Your task to perform on an android device: refresh tabs in the chrome app Image 0: 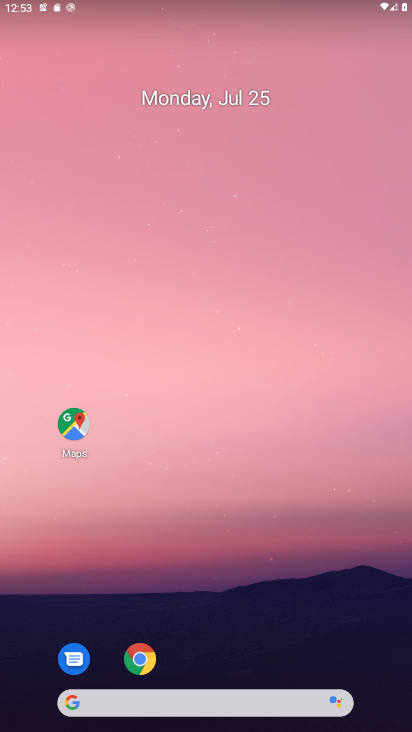
Step 0: press home button
Your task to perform on an android device: refresh tabs in the chrome app Image 1: 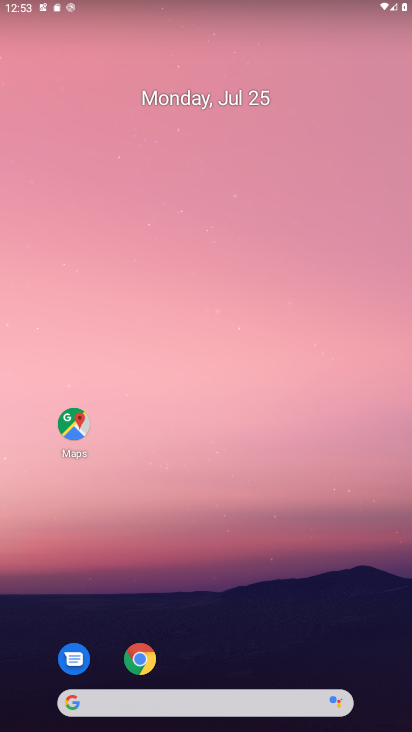
Step 1: click (137, 657)
Your task to perform on an android device: refresh tabs in the chrome app Image 2: 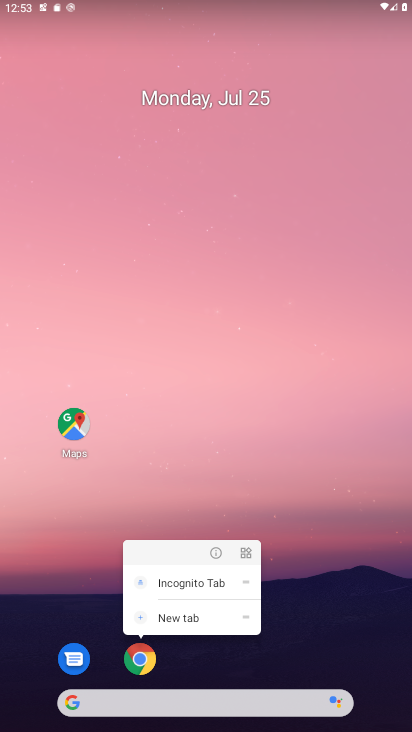
Step 2: click (137, 657)
Your task to perform on an android device: refresh tabs in the chrome app Image 3: 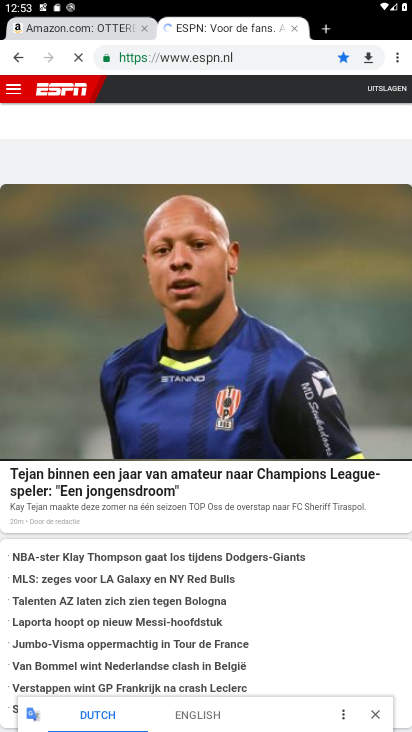
Step 3: click (399, 58)
Your task to perform on an android device: refresh tabs in the chrome app Image 4: 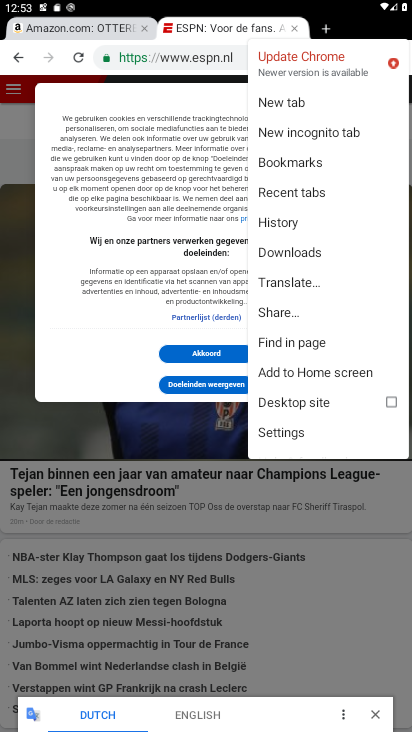
Step 4: click (74, 62)
Your task to perform on an android device: refresh tabs in the chrome app Image 5: 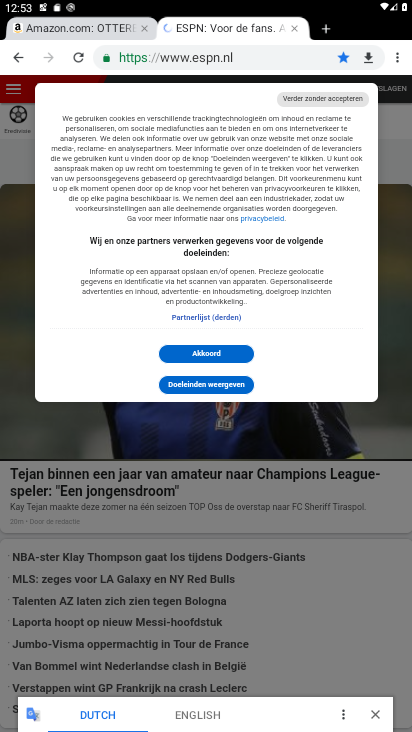
Step 5: click (74, 62)
Your task to perform on an android device: refresh tabs in the chrome app Image 6: 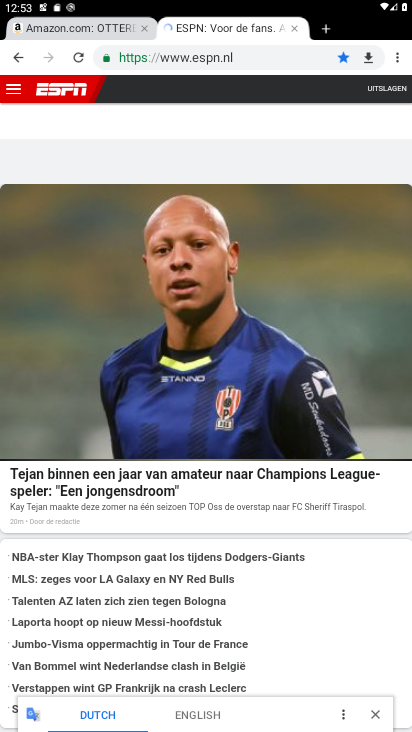
Step 6: task complete